Your task to perform on an android device: open app "Nova Launcher" (install if not already installed) and enter user name: "haggard@gmail.com" and password: "sadder" Image 0: 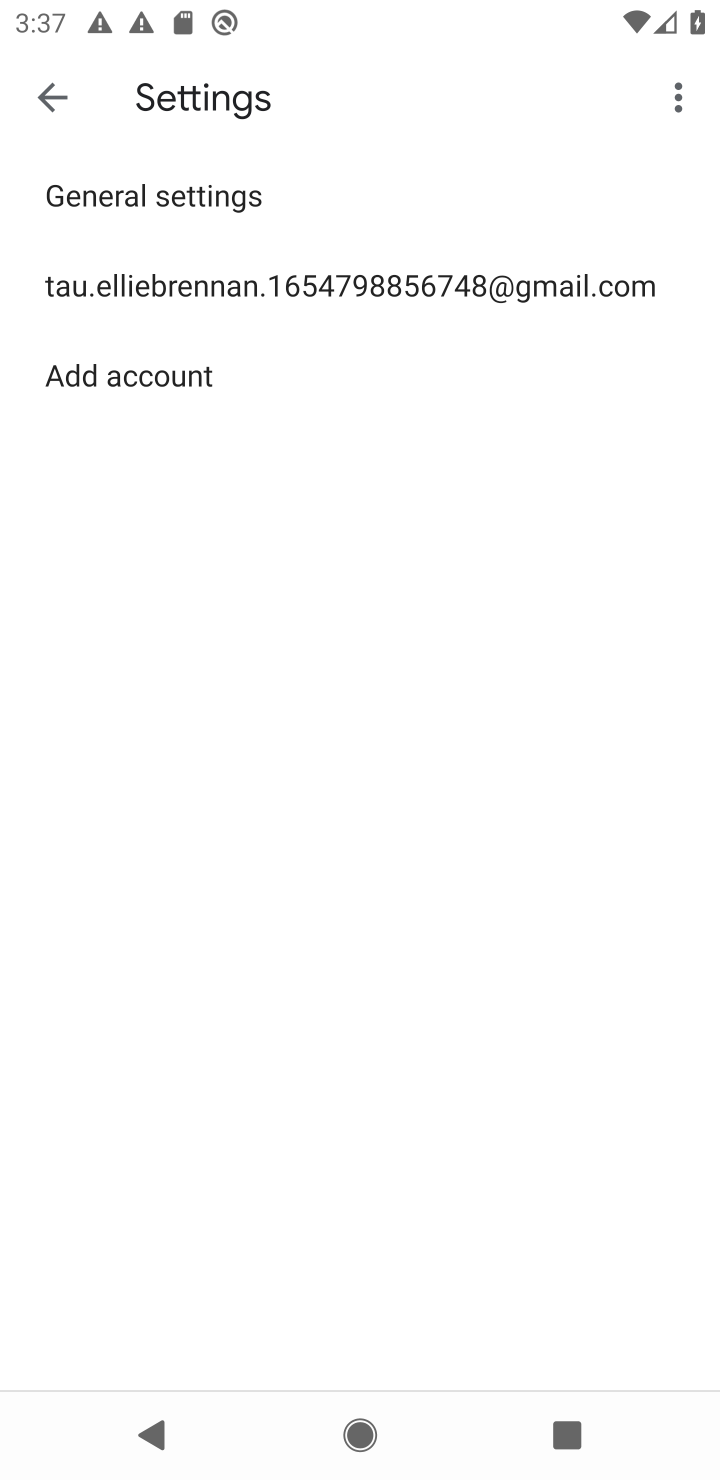
Step 0: press home button
Your task to perform on an android device: open app "Nova Launcher" (install if not already installed) and enter user name: "haggard@gmail.com" and password: "sadder" Image 1: 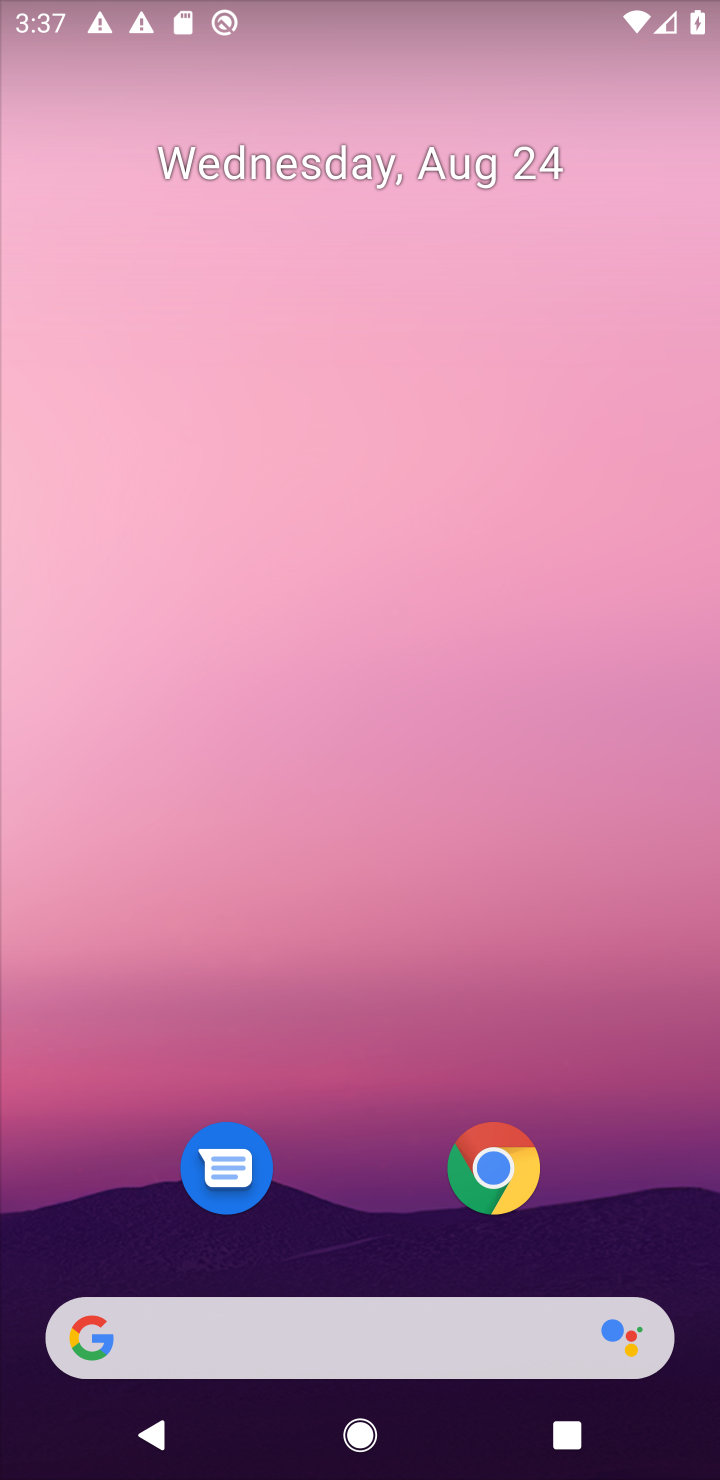
Step 1: drag from (693, 1286) to (565, 213)
Your task to perform on an android device: open app "Nova Launcher" (install if not already installed) and enter user name: "haggard@gmail.com" and password: "sadder" Image 2: 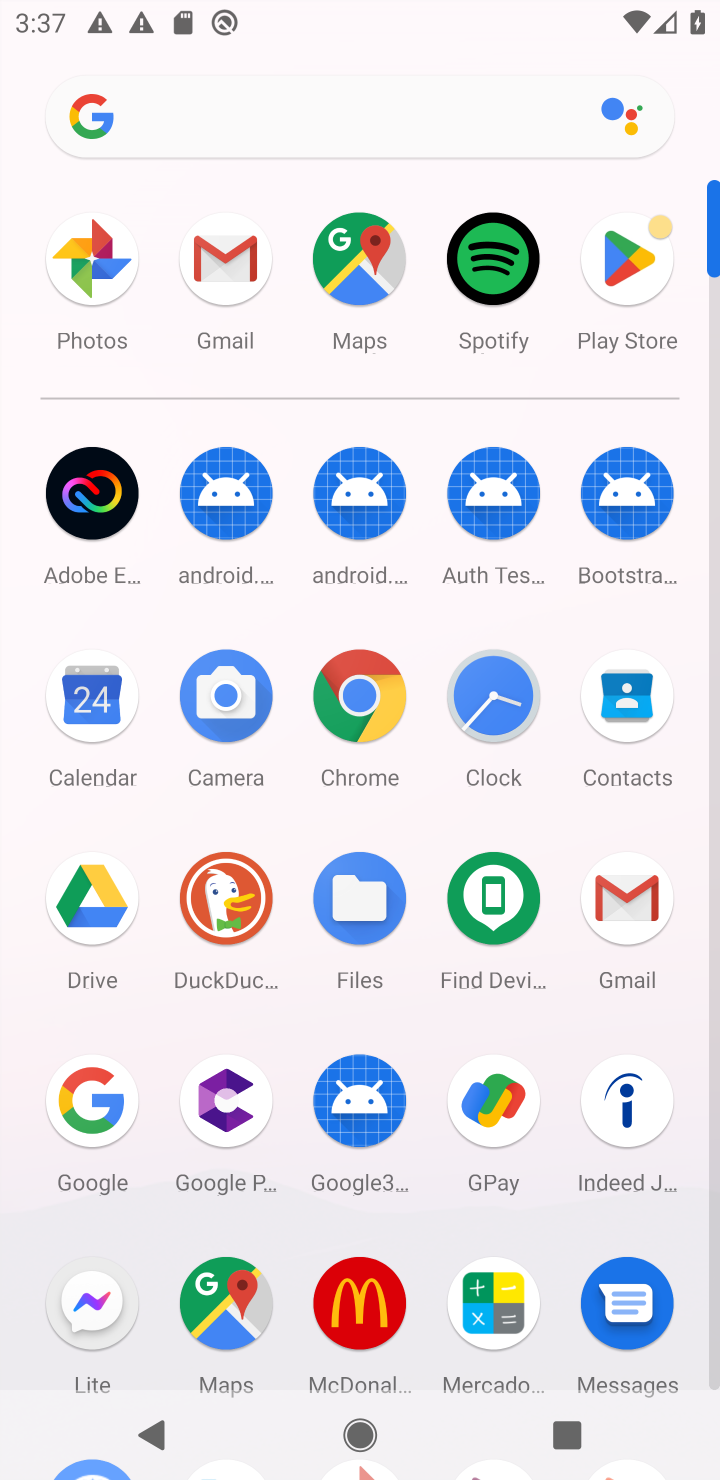
Step 2: click (719, 1321)
Your task to perform on an android device: open app "Nova Launcher" (install if not already installed) and enter user name: "haggard@gmail.com" and password: "sadder" Image 3: 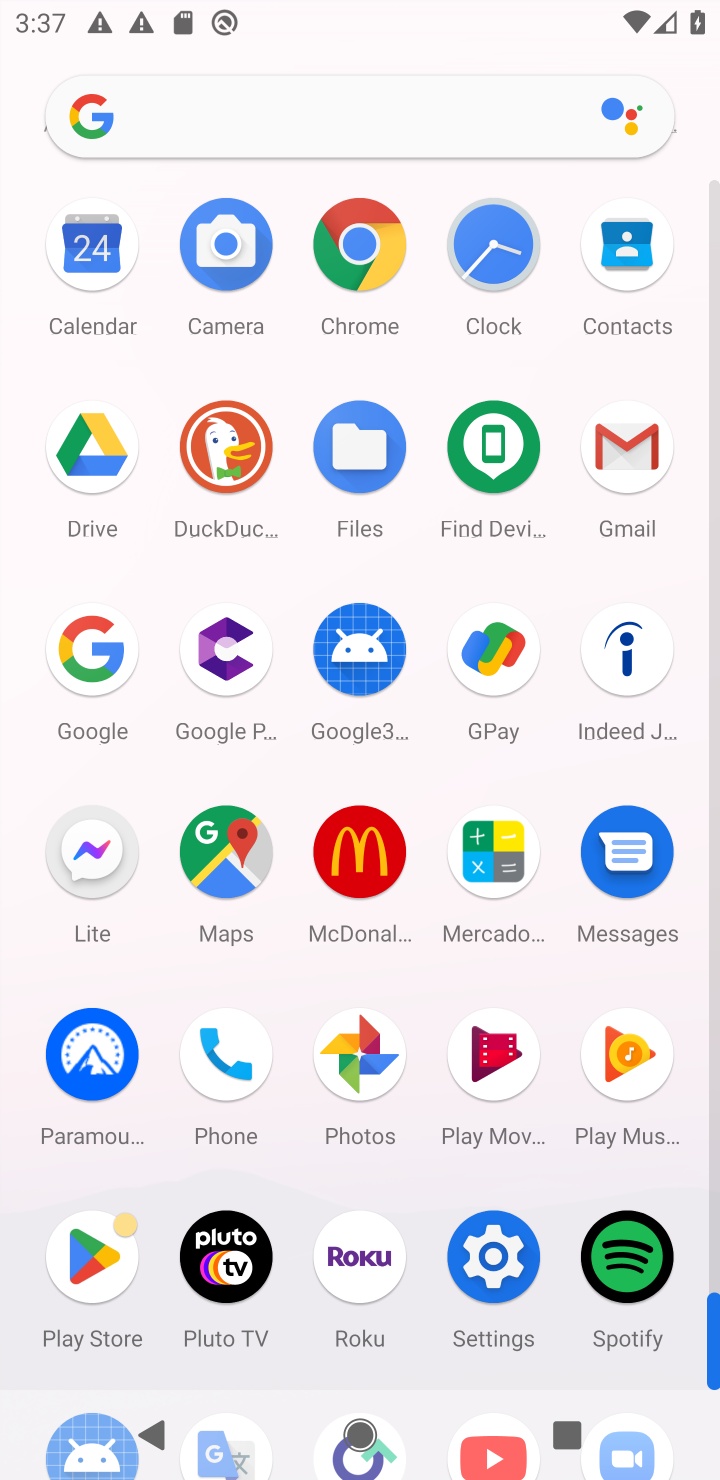
Step 3: click (95, 1257)
Your task to perform on an android device: open app "Nova Launcher" (install if not already installed) and enter user name: "haggard@gmail.com" and password: "sadder" Image 4: 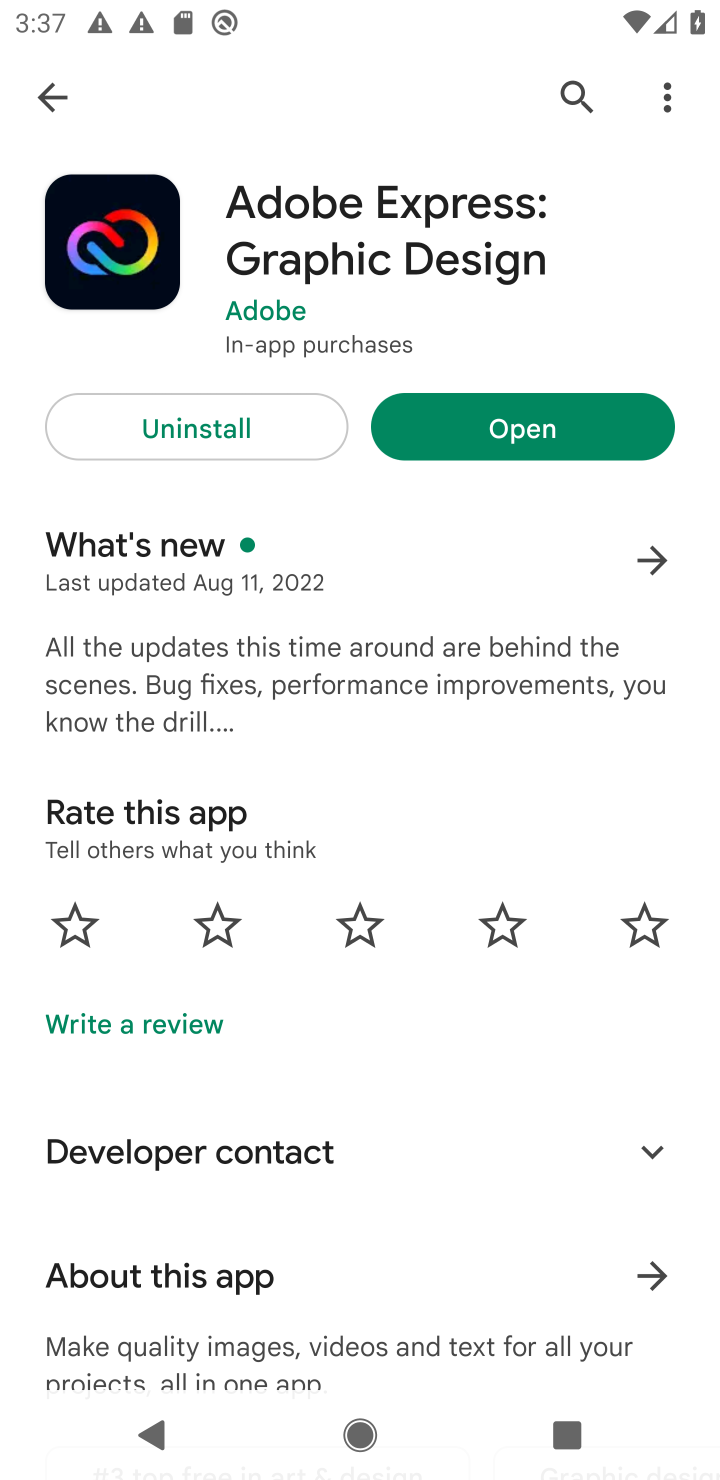
Step 4: click (557, 87)
Your task to perform on an android device: open app "Nova Launcher" (install if not already installed) and enter user name: "haggard@gmail.com" and password: "sadder" Image 5: 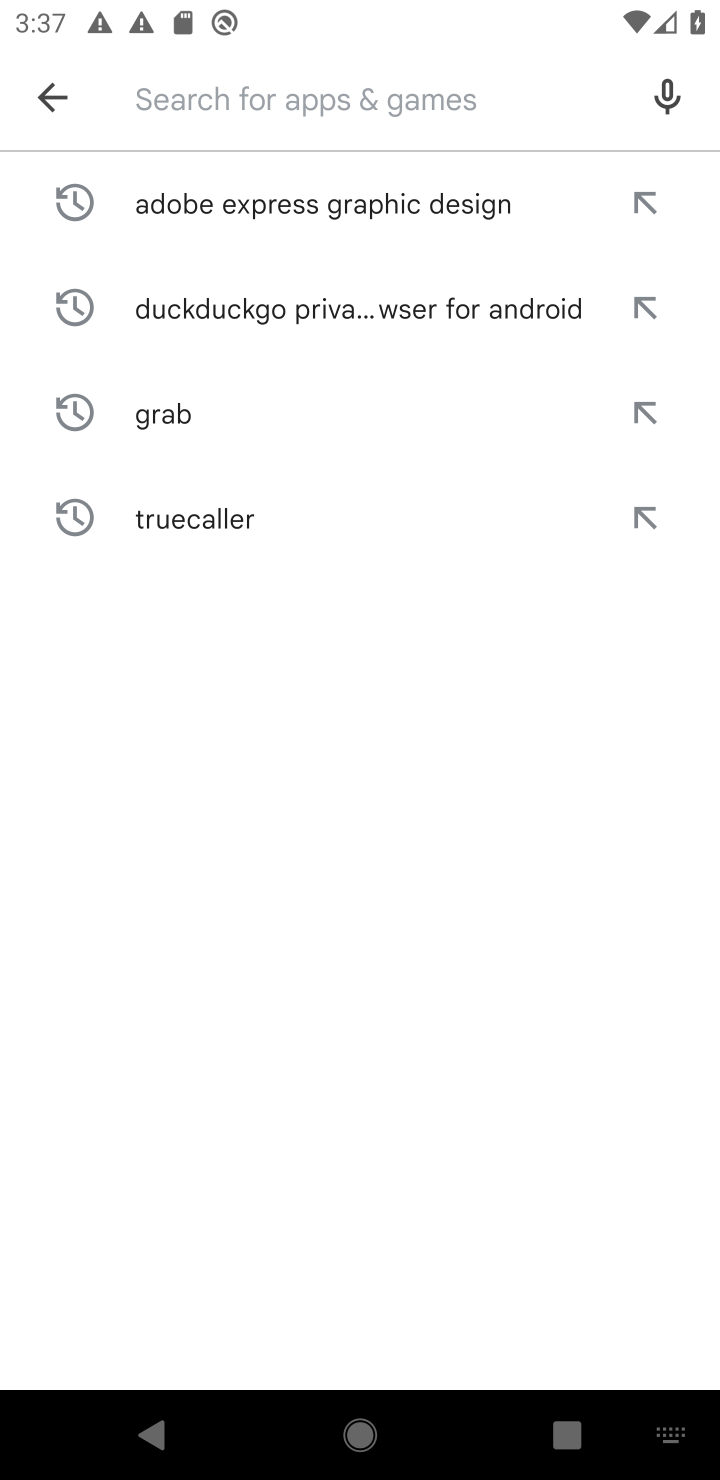
Step 5: type "Nova Launcher"
Your task to perform on an android device: open app "Nova Launcher" (install if not already installed) and enter user name: "haggard@gmail.com" and password: "sadder" Image 6: 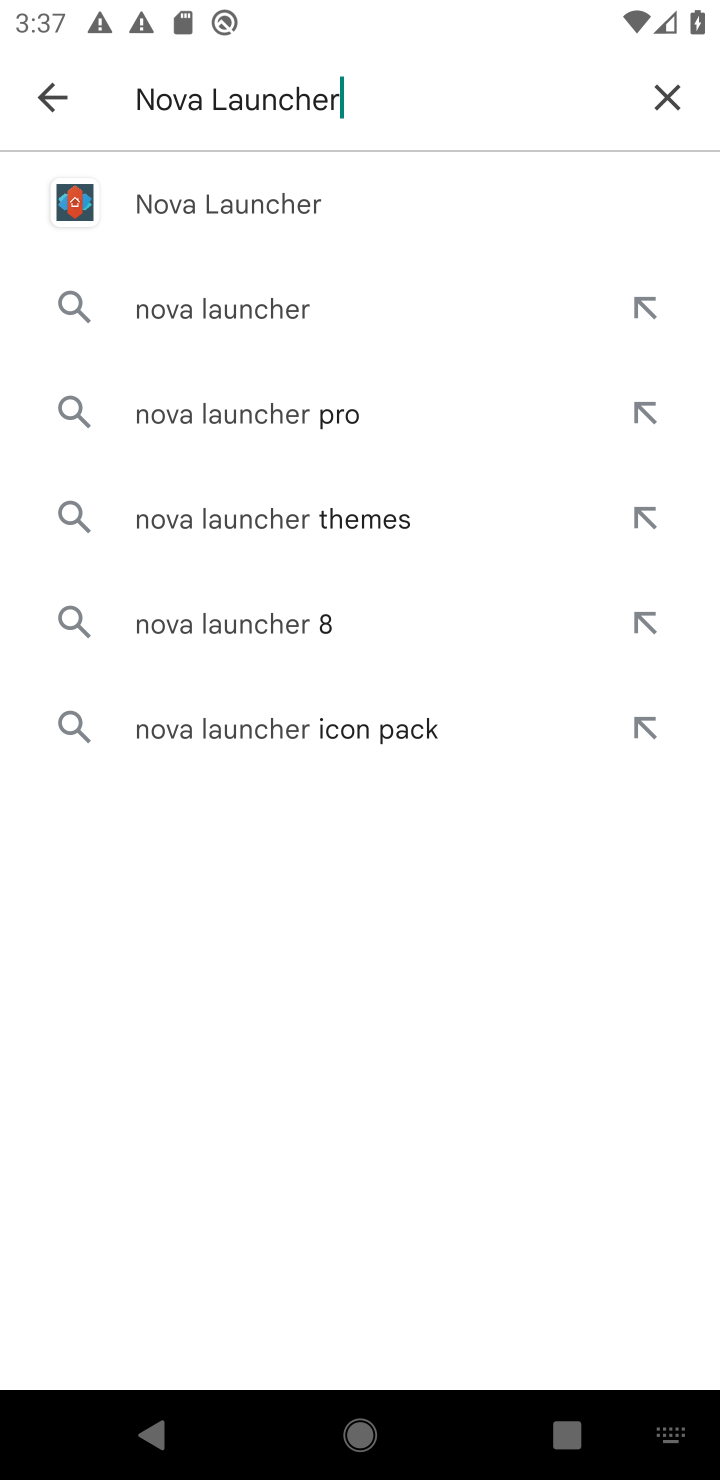
Step 6: click (173, 200)
Your task to perform on an android device: open app "Nova Launcher" (install if not already installed) and enter user name: "haggard@gmail.com" and password: "sadder" Image 7: 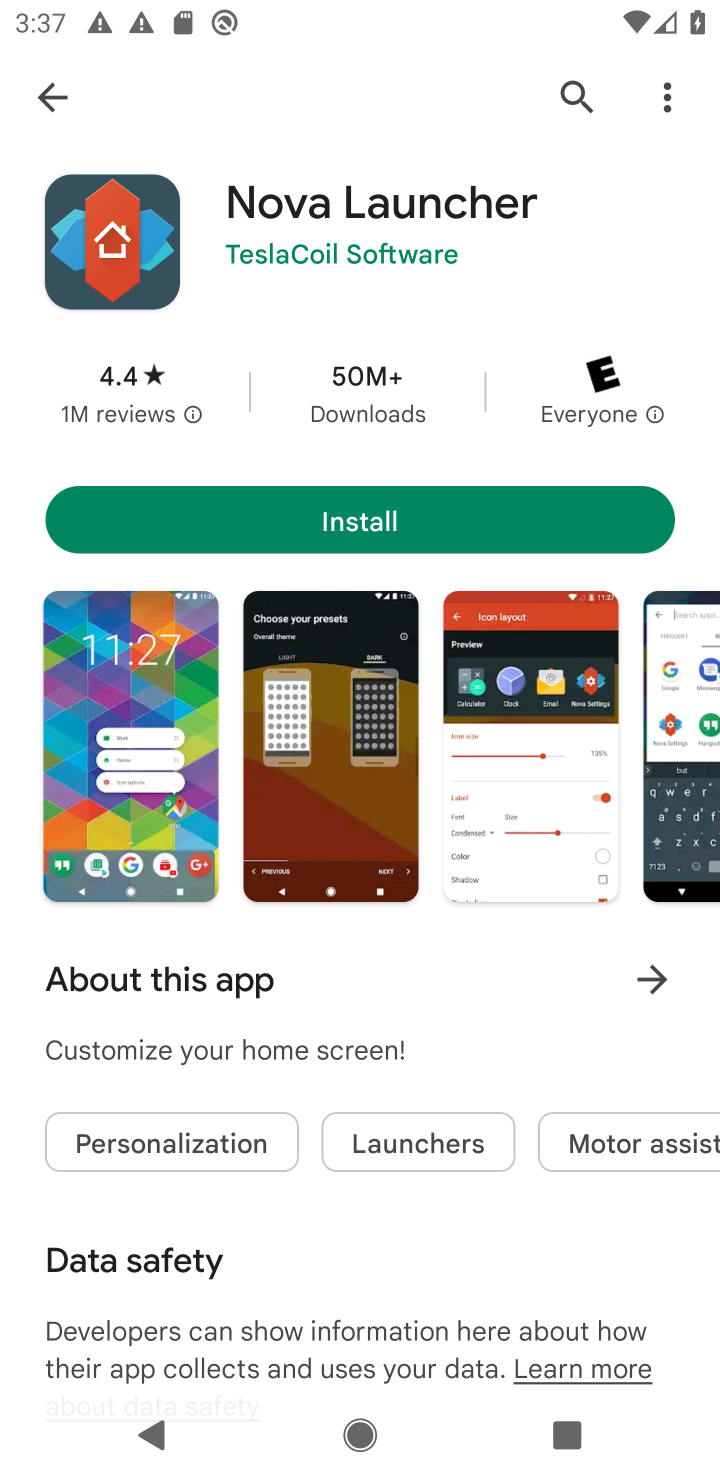
Step 7: click (341, 517)
Your task to perform on an android device: open app "Nova Launcher" (install if not already installed) and enter user name: "haggard@gmail.com" and password: "sadder" Image 8: 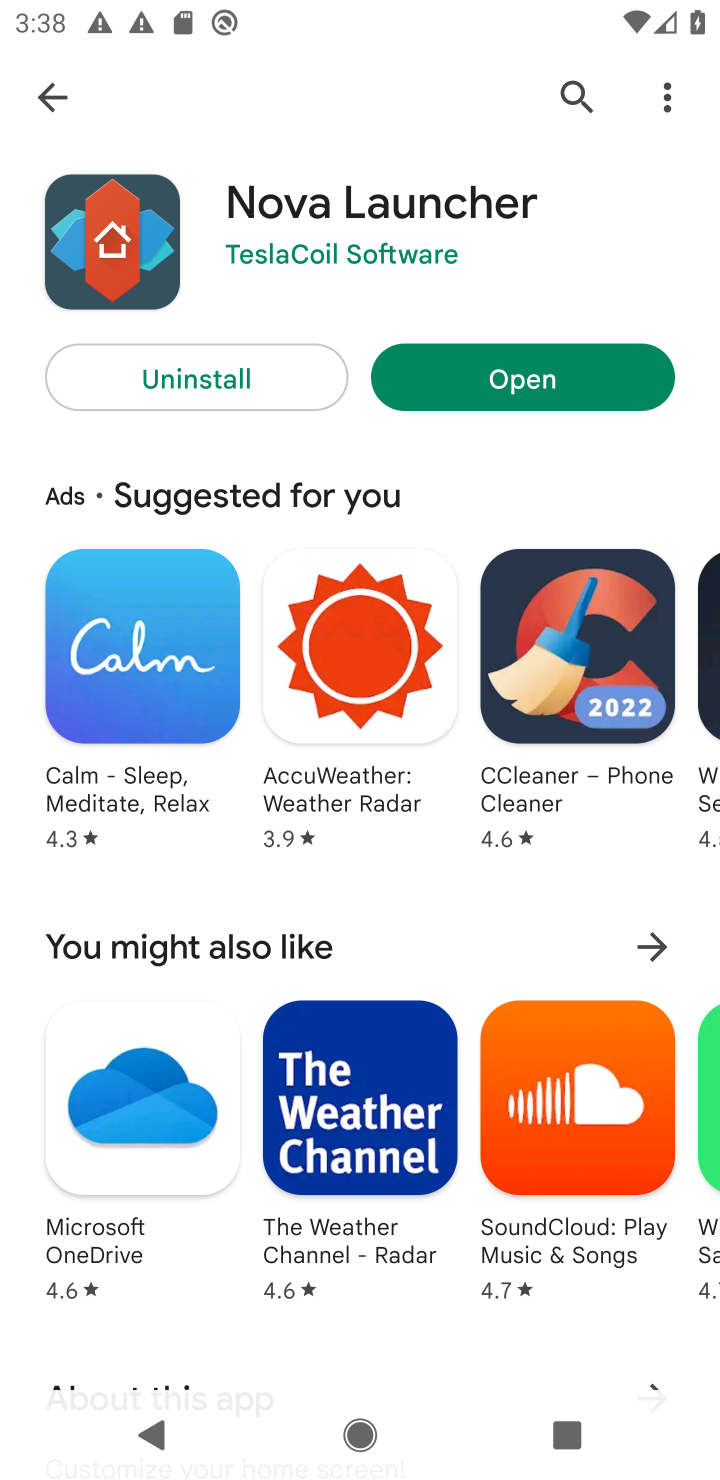
Step 8: click (522, 382)
Your task to perform on an android device: open app "Nova Launcher" (install if not already installed) and enter user name: "haggard@gmail.com" and password: "sadder" Image 9: 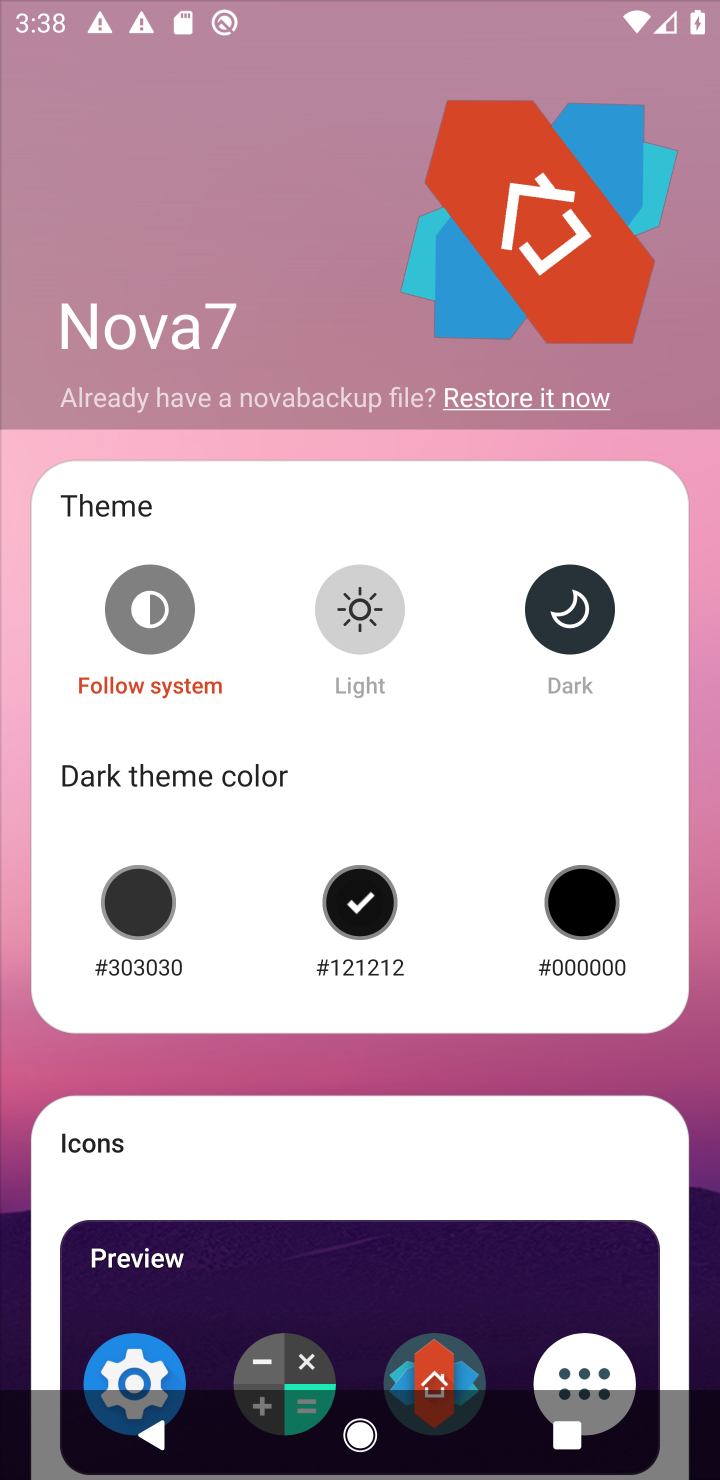
Step 9: task complete